Your task to perform on an android device: Search for sushi restaurants on Maps Image 0: 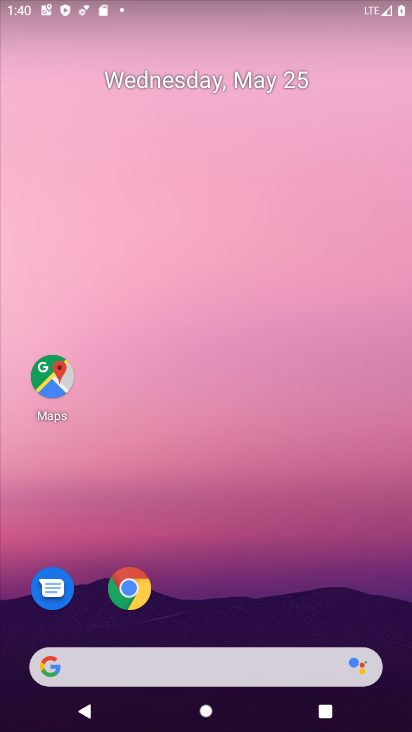
Step 0: click (50, 381)
Your task to perform on an android device: Search for sushi restaurants on Maps Image 1: 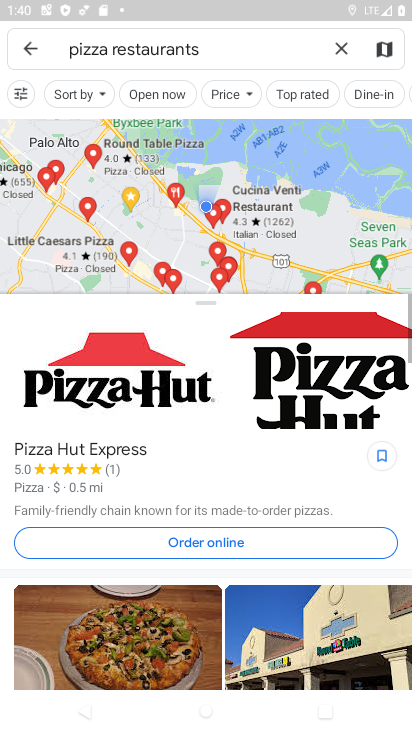
Step 1: click (333, 54)
Your task to perform on an android device: Search for sushi restaurants on Maps Image 2: 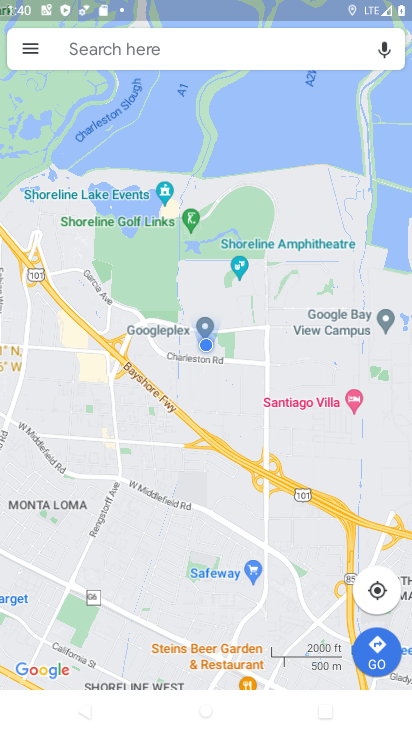
Step 2: click (94, 46)
Your task to perform on an android device: Search for sushi restaurants on Maps Image 3: 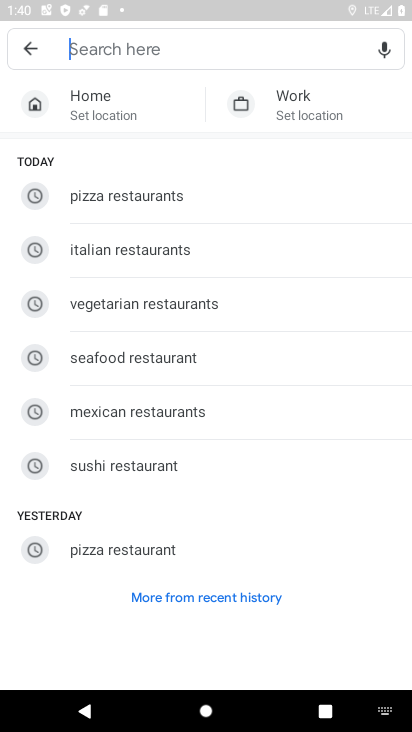
Step 3: type "sushi restaurants"
Your task to perform on an android device: Search for sushi restaurants on Maps Image 4: 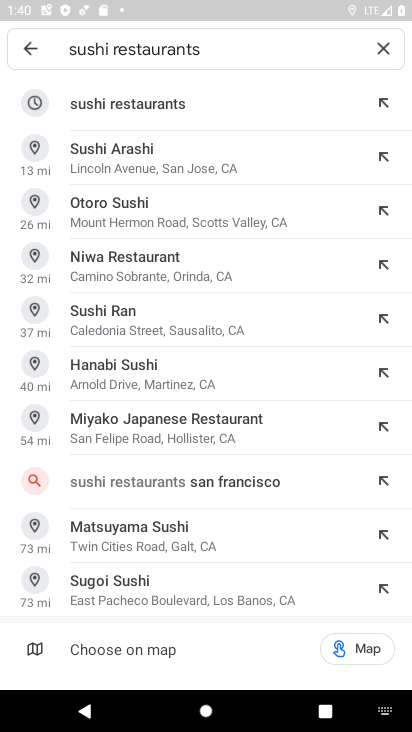
Step 4: click (152, 106)
Your task to perform on an android device: Search for sushi restaurants on Maps Image 5: 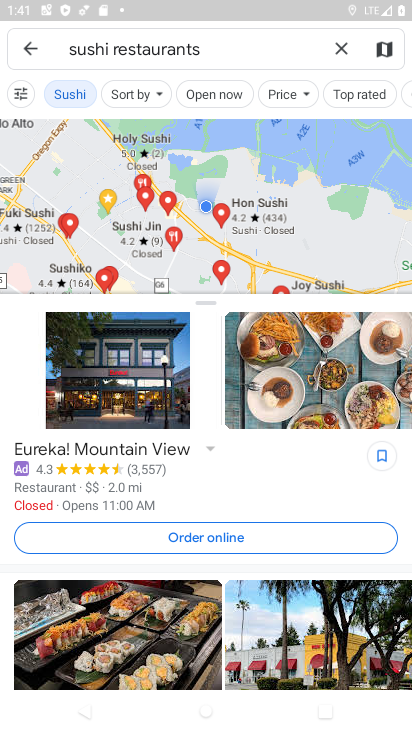
Step 5: task complete